Your task to perform on an android device: What's the weather going to be tomorrow? Image 0: 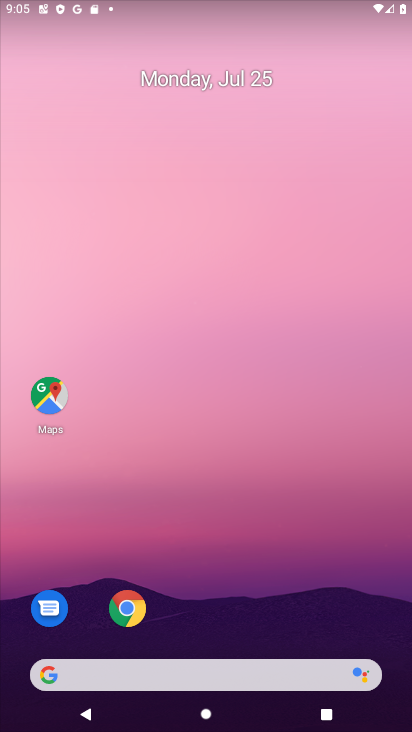
Step 0: click (137, 614)
Your task to perform on an android device: What's the weather going to be tomorrow? Image 1: 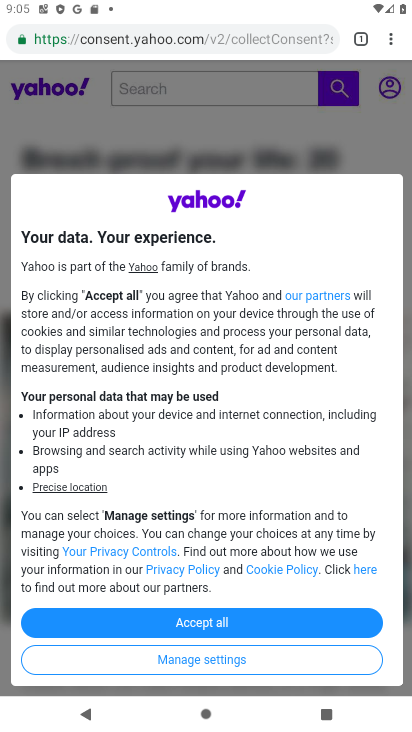
Step 1: click (395, 42)
Your task to perform on an android device: What's the weather going to be tomorrow? Image 2: 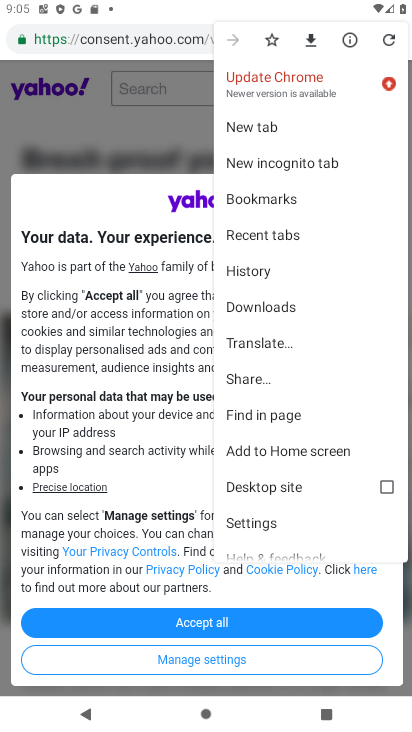
Step 2: click (275, 114)
Your task to perform on an android device: What's the weather going to be tomorrow? Image 3: 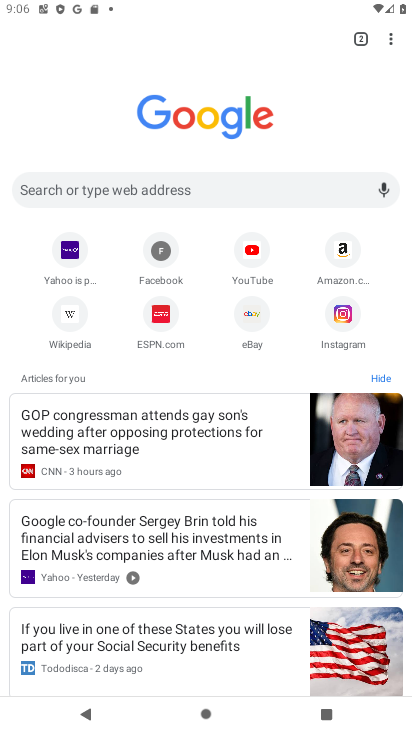
Step 3: click (194, 188)
Your task to perform on an android device: What's the weather going to be tomorrow? Image 4: 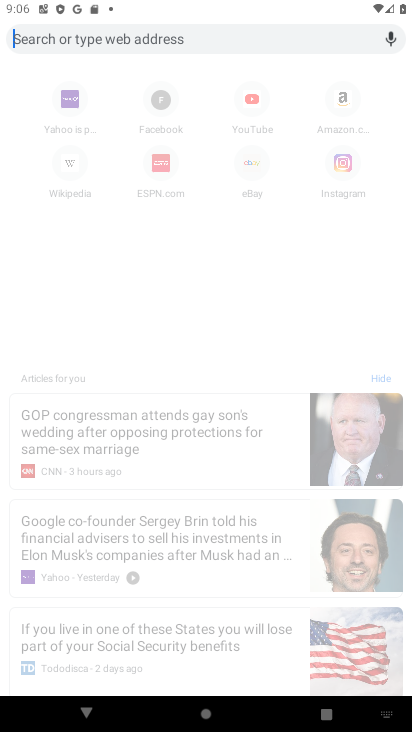
Step 4: type "What's the weather going to be tomorrow? "
Your task to perform on an android device: What's the weather going to be tomorrow? Image 5: 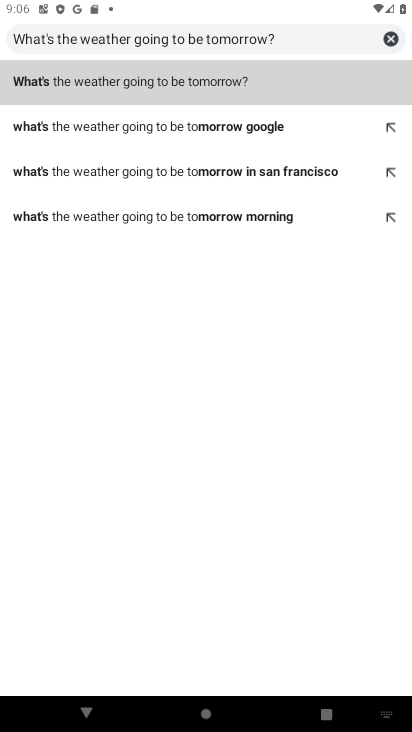
Step 5: click (180, 79)
Your task to perform on an android device: What's the weather going to be tomorrow? Image 6: 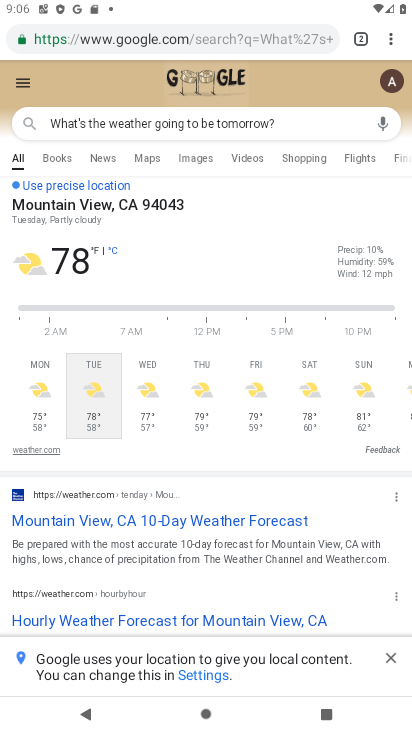
Step 6: task complete